Your task to perform on an android device: Show me the alarms in the clock app Image 0: 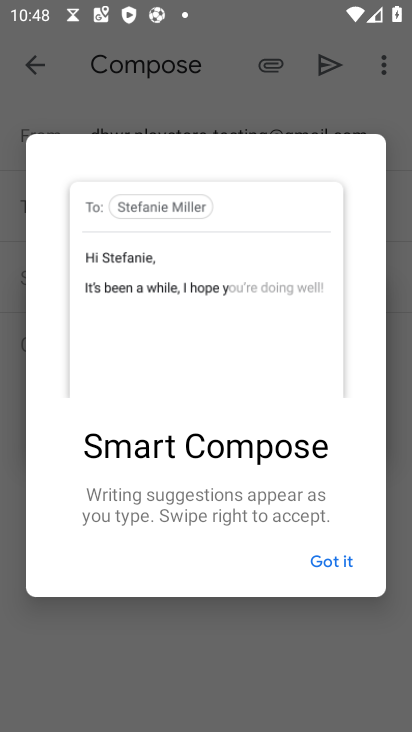
Step 0: press home button
Your task to perform on an android device: Show me the alarms in the clock app Image 1: 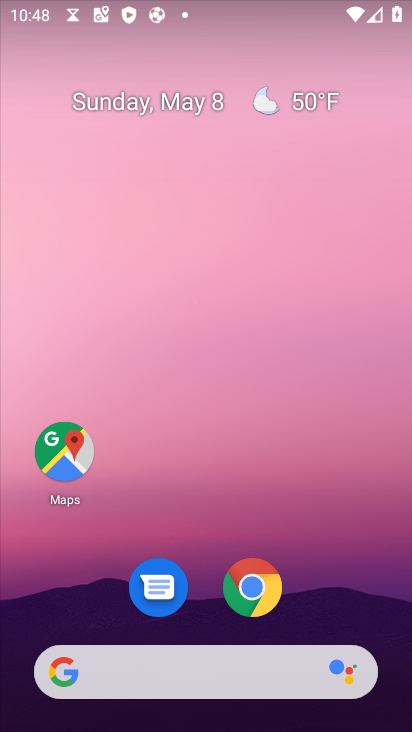
Step 1: drag from (322, 593) to (202, 85)
Your task to perform on an android device: Show me the alarms in the clock app Image 2: 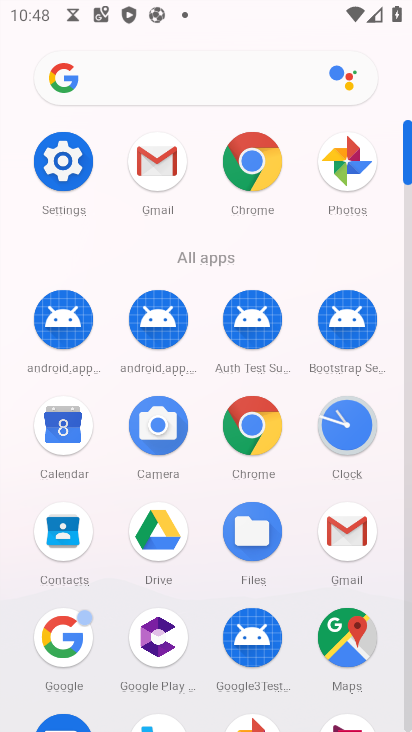
Step 2: click (354, 435)
Your task to perform on an android device: Show me the alarms in the clock app Image 3: 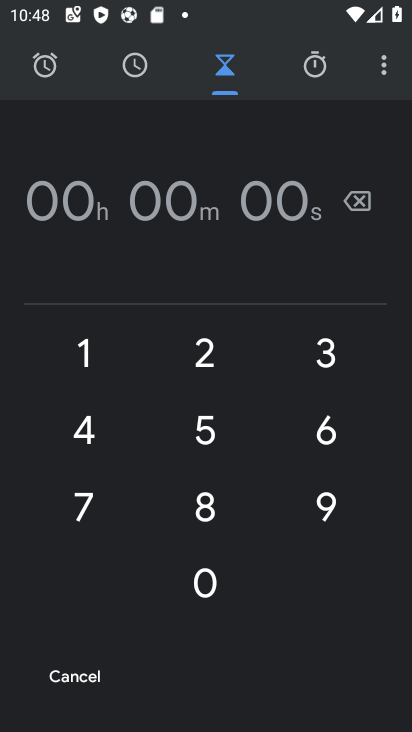
Step 3: click (48, 67)
Your task to perform on an android device: Show me the alarms in the clock app Image 4: 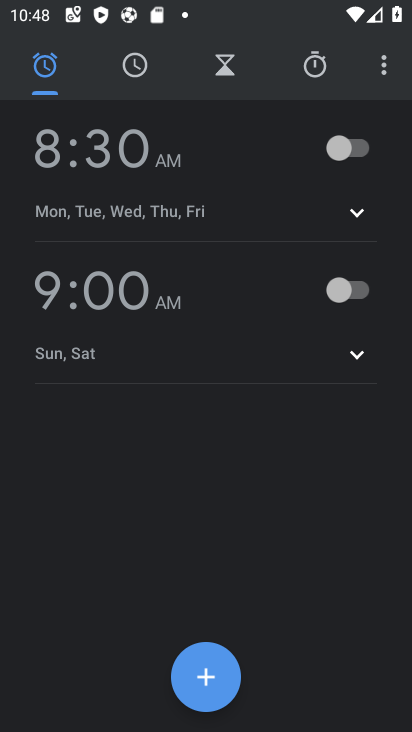
Step 4: task complete